Your task to perform on an android device: Go to Reddit.com Image 0: 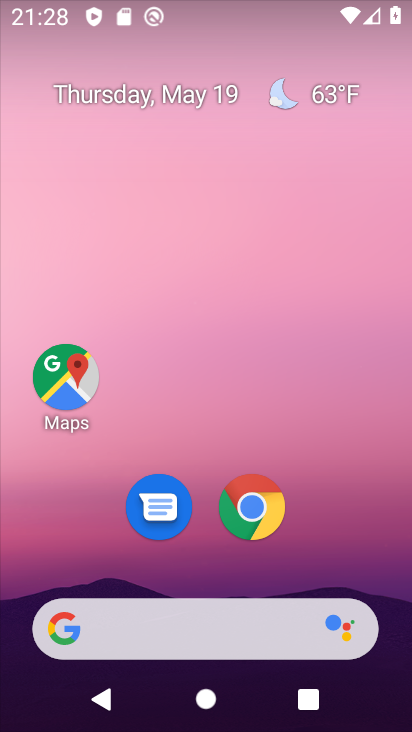
Step 0: click (260, 498)
Your task to perform on an android device: Go to Reddit.com Image 1: 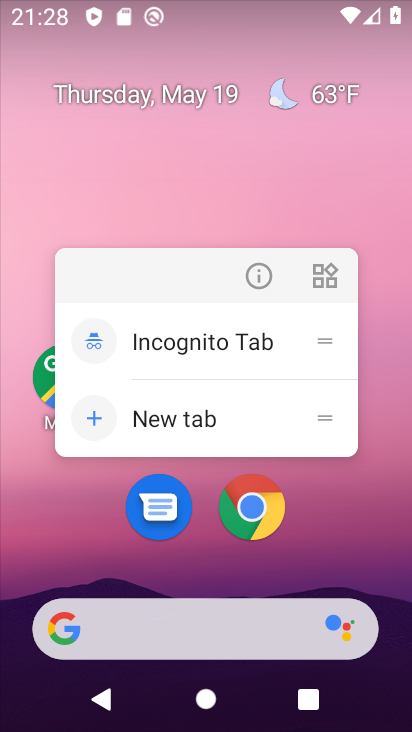
Step 1: click (260, 498)
Your task to perform on an android device: Go to Reddit.com Image 2: 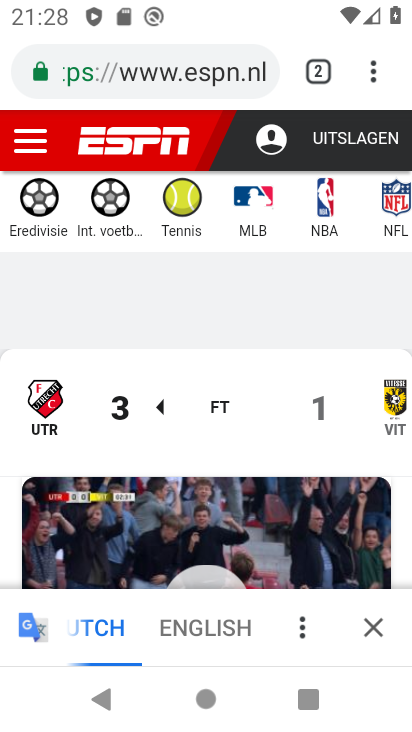
Step 2: click (201, 72)
Your task to perform on an android device: Go to Reddit.com Image 3: 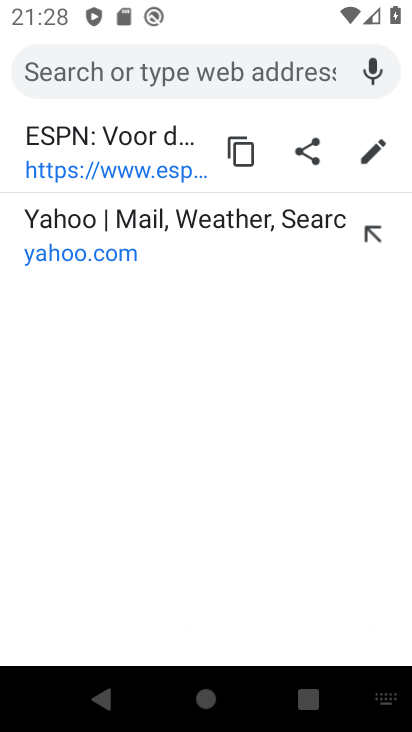
Step 3: type "Reddit.com"
Your task to perform on an android device: Go to Reddit.com Image 4: 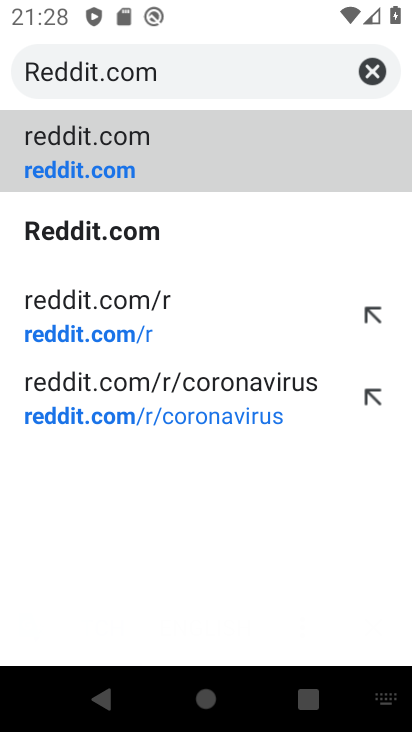
Step 4: click (120, 172)
Your task to perform on an android device: Go to Reddit.com Image 5: 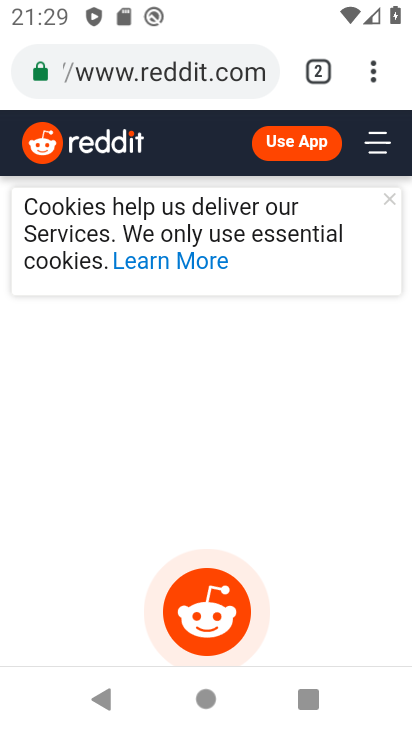
Step 5: task complete